Your task to perform on an android device: What's the weather? Image 0: 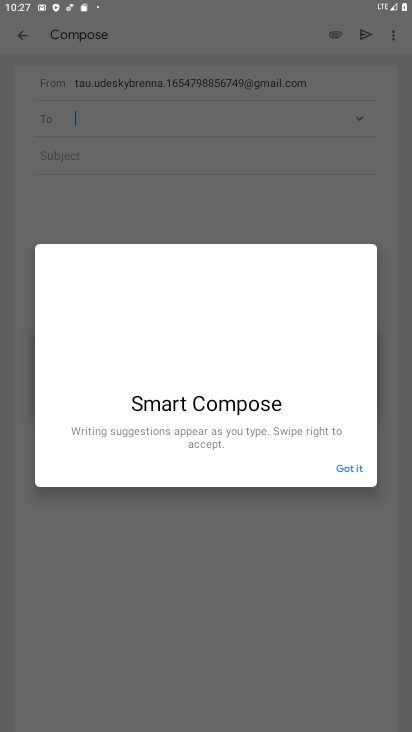
Step 0: click (353, 476)
Your task to perform on an android device: What's the weather? Image 1: 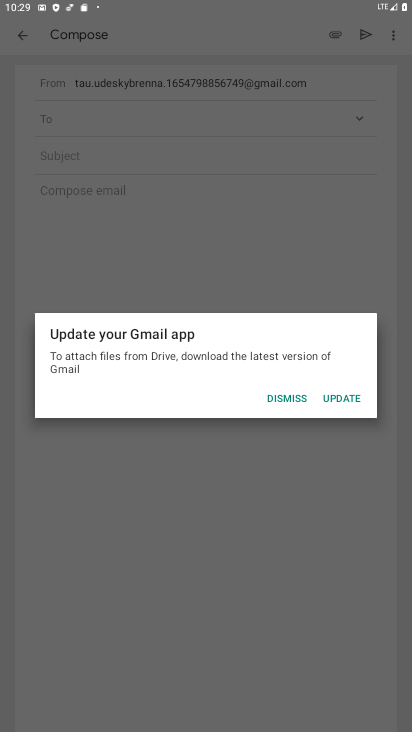
Step 1: press home button
Your task to perform on an android device: What's the weather? Image 2: 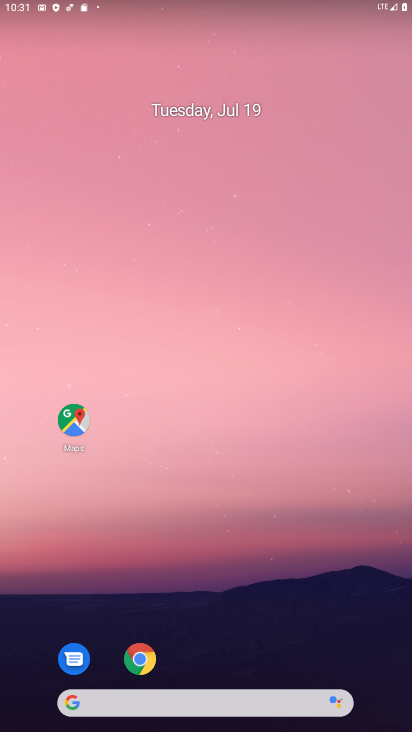
Step 2: click (245, 706)
Your task to perform on an android device: What's the weather? Image 3: 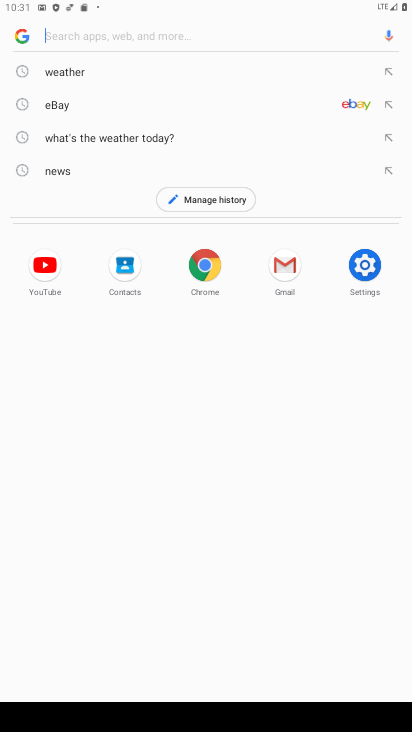
Step 3: type "What's the weather?"
Your task to perform on an android device: What's the weather? Image 4: 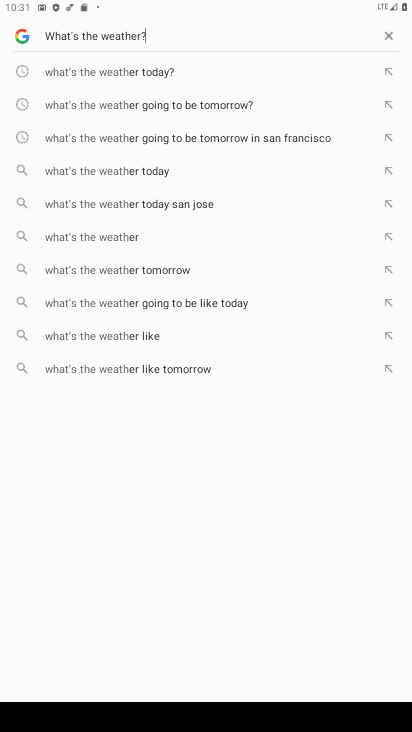
Step 4: press enter
Your task to perform on an android device: What's the weather? Image 5: 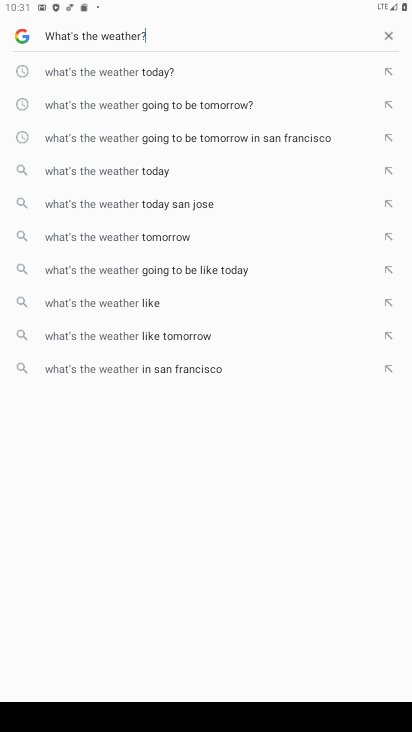
Step 5: type ""
Your task to perform on an android device: What's the weather? Image 6: 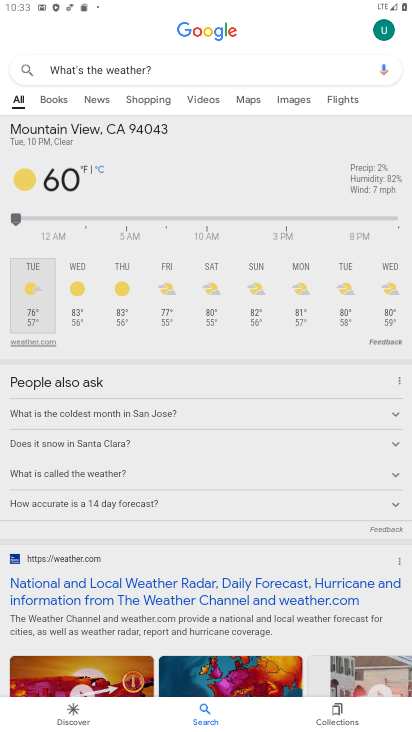
Step 6: task complete